Your task to perform on an android device: turn on location history Image 0: 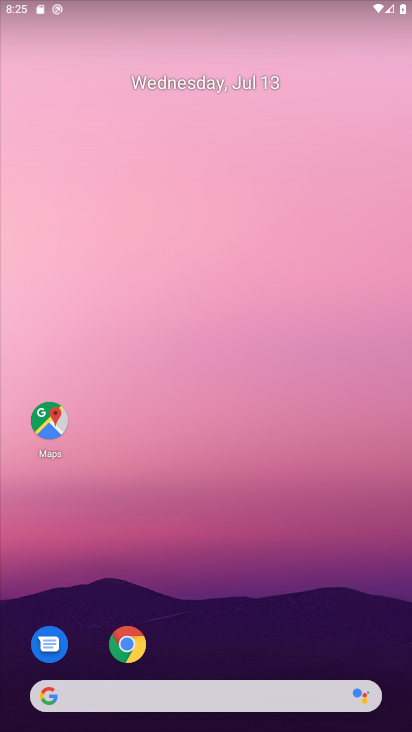
Step 0: drag from (264, 661) to (297, 12)
Your task to perform on an android device: turn on location history Image 1: 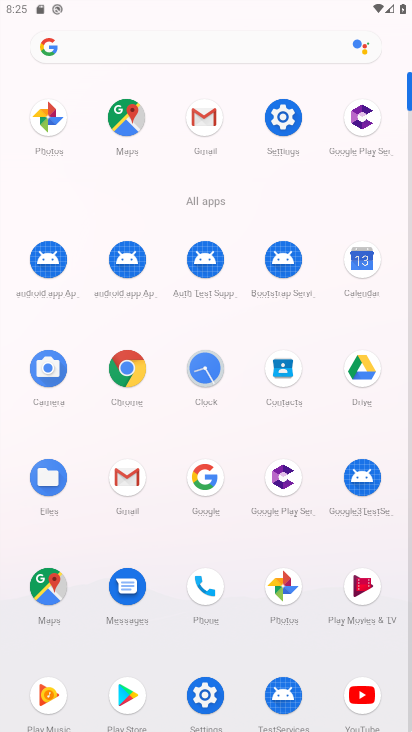
Step 1: click (280, 102)
Your task to perform on an android device: turn on location history Image 2: 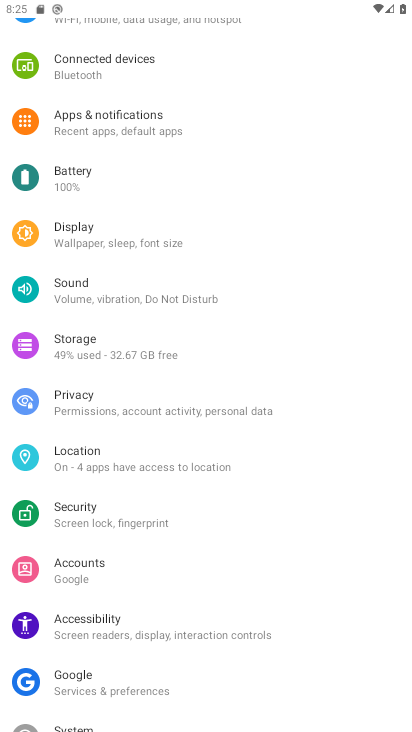
Step 2: click (247, 464)
Your task to perform on an android device: turn on location history Image 3: 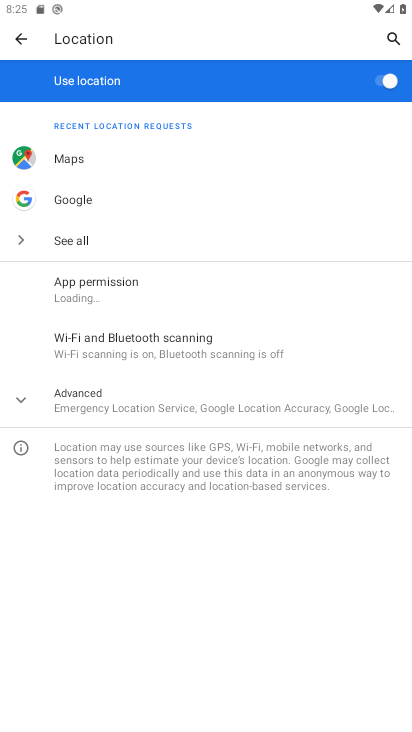
Step 3: click (259, 401)
Your task to perform on an android device: turn on location history Image 4: 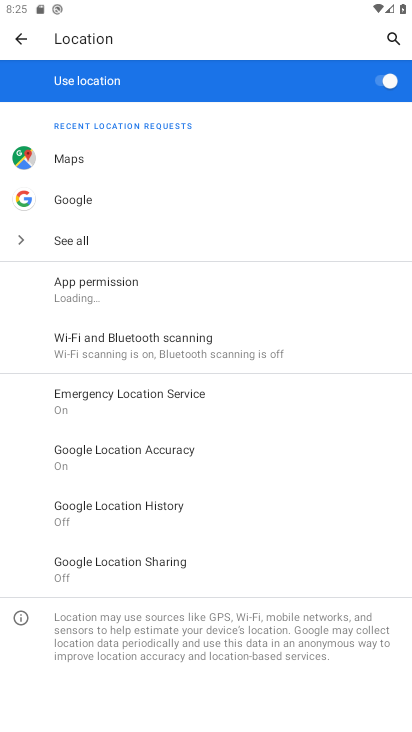
Step 4: click (177, 515)
Your task to perform on an android device: turn on location history Image 5: 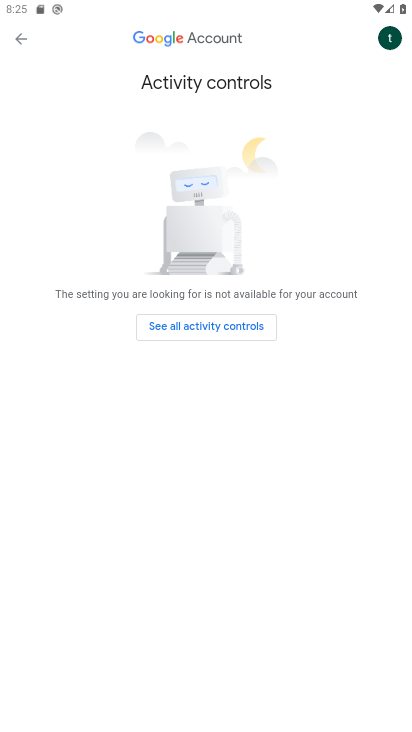
Step 5: click (207, 333)
Your task to perform on an android device: turn on location history Image 6: 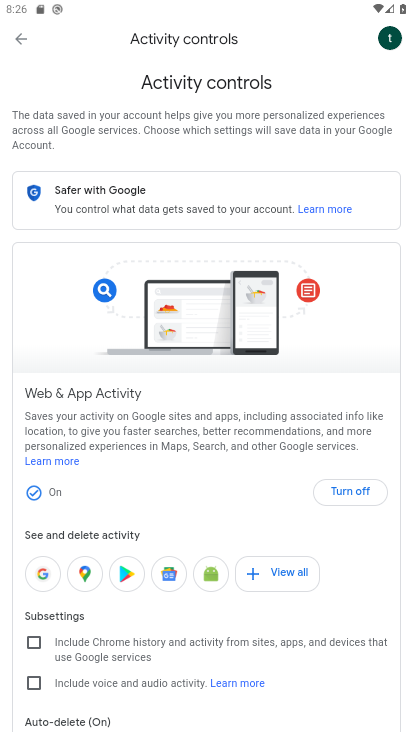
Step 6: task complete